Your task to perform on an android device: turn on location history Image 0: 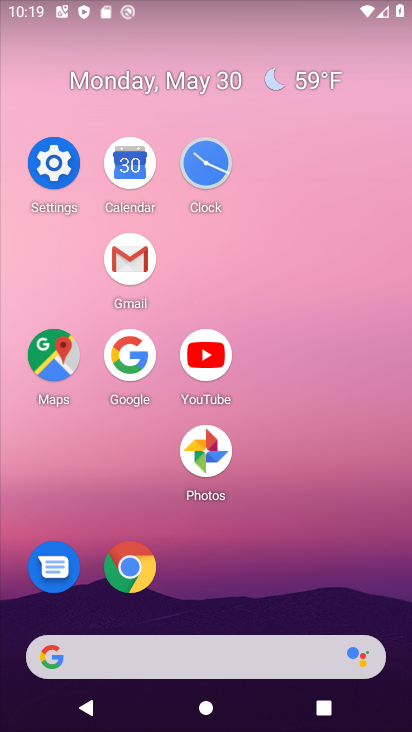
Step 0: click (36, 154)
Your task to perform on an android device: turn on location history Image 1: 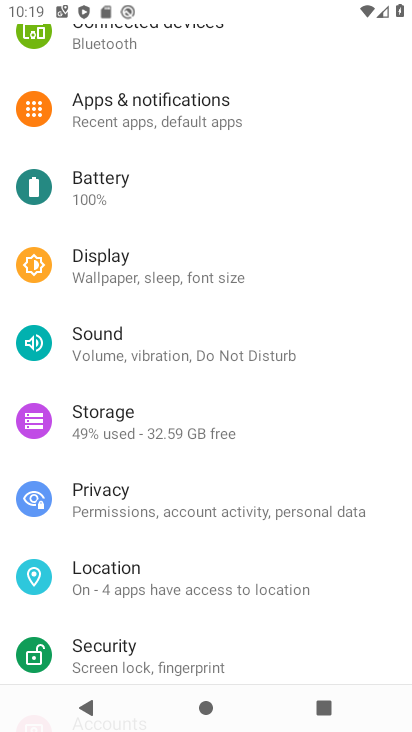
Step 1: click (249, 571)
Your task to perform on an android device: turn on location history Image 2: 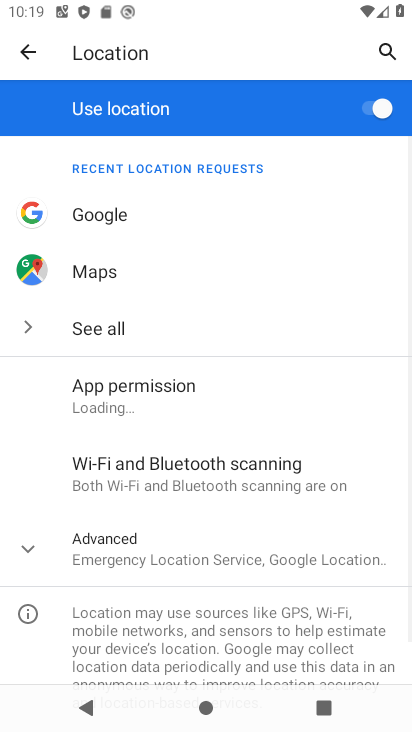
Step 2: click (233, 551)
Your task to perform on an android device: turn on location history Image 3: 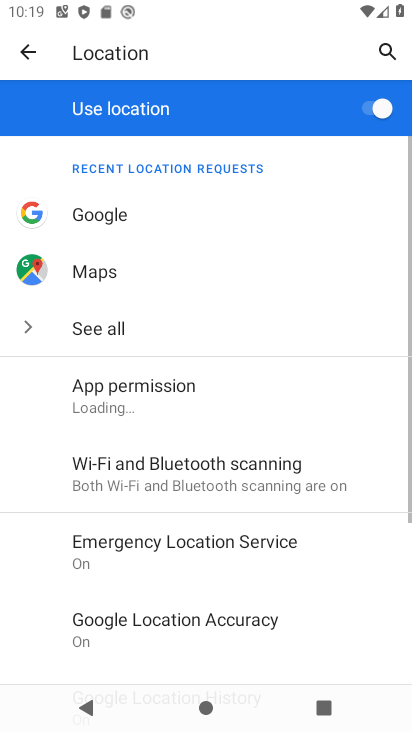
Step 3: drag from (233, 542) to (272, 198)
Your task to perform on an android device: turn on location history Image 4: 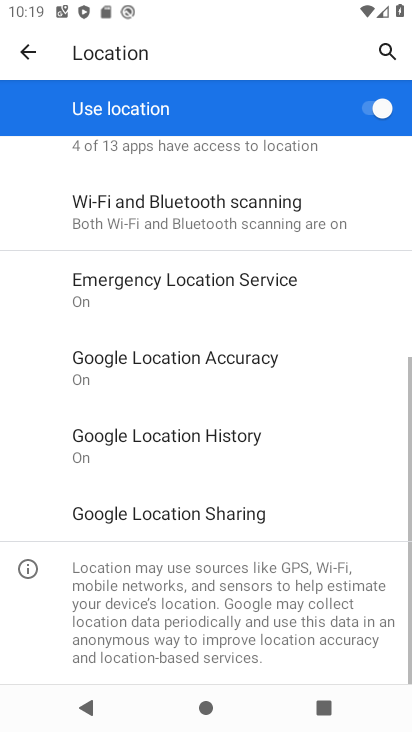
Step 4: click (247, 435)
Your task to perform on an android device: turn on location history Image 5: 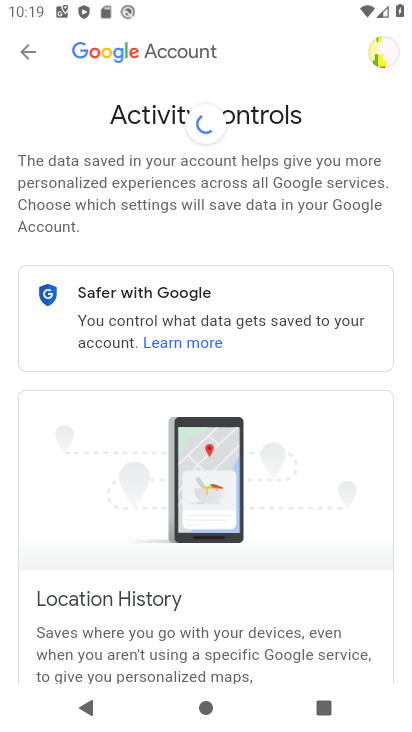
Step 5: task complete